Your task to perform on an android device: turn off sleep mode Image 0: 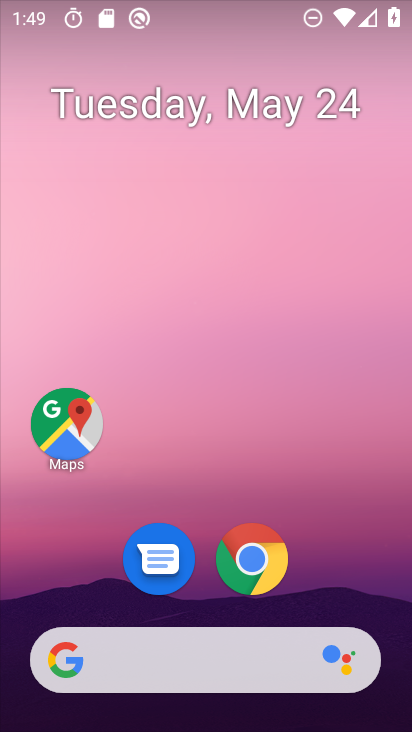
Step 0: click (291, 149)
Your task to perform on an android device: turn off sleep mode Image 1: 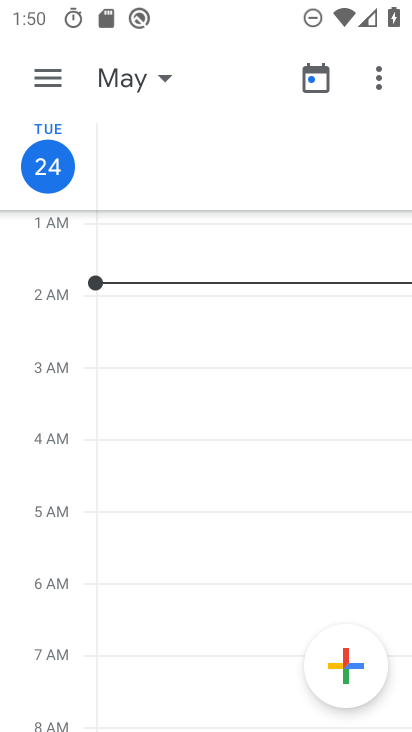
Step 1: click (51, 77)
Your task to perform on an android device: turn off sleep mode Image 2: 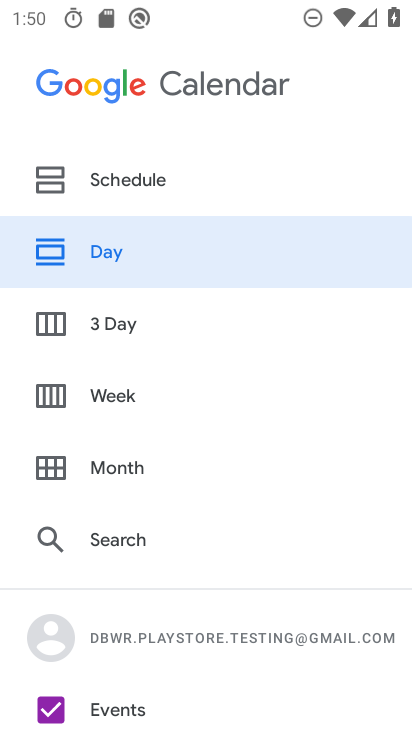
Step 2: press home button
Your task to perform on an android device: turn off sleep mode Image 3: 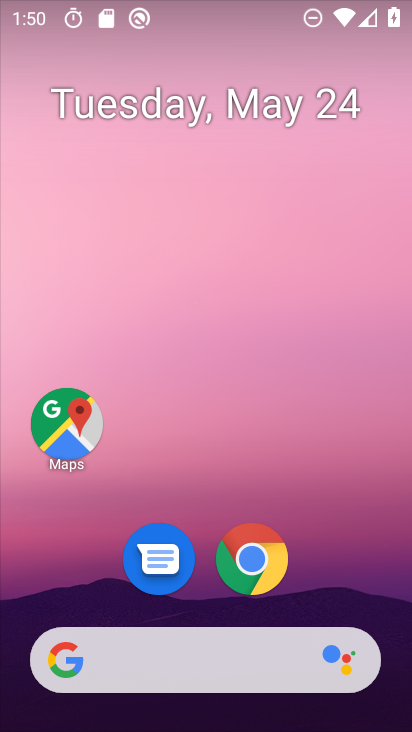
Step 3: drag from (389, 507) to (373, 145)
Your task to perform on an android device: turn off sleep mode Image 4: 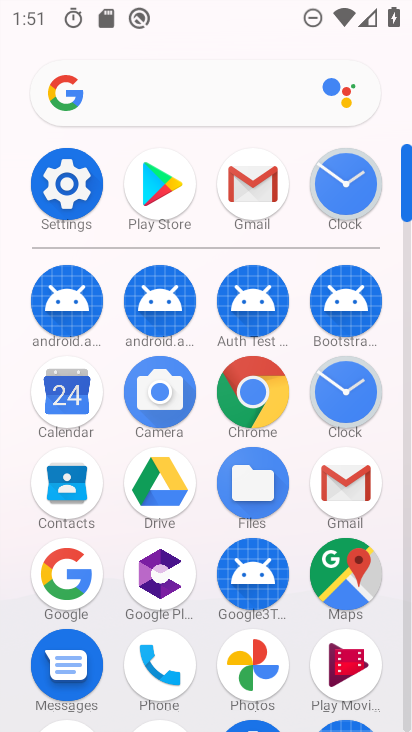
Step 4: click (74, 206)
Your task to perform on an android device: turn off sleep mode Image 5: 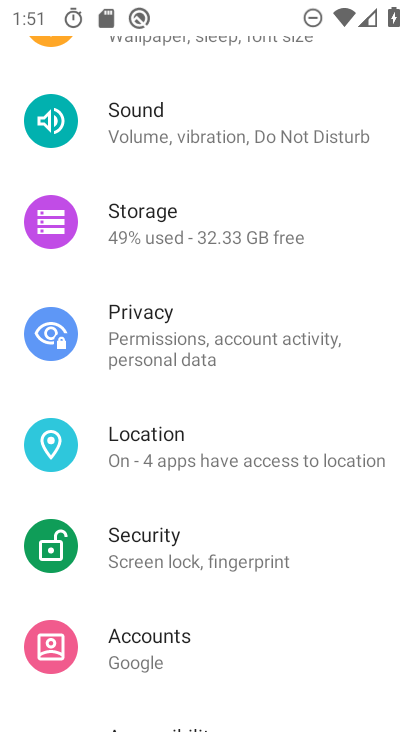
Step 5: drag from (288, 116) to (316, 636)
Your task to perform on an android device: turn off sleep mode Image 6: 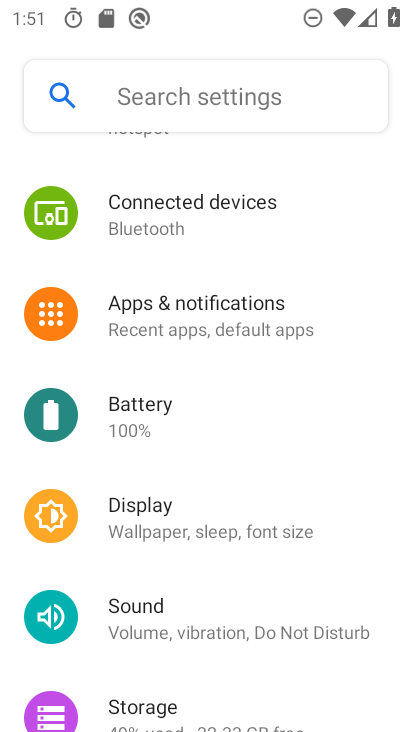
Step 6: click (167, 526)
Your task to perform on an android device: turn off sleep mode Image 7: 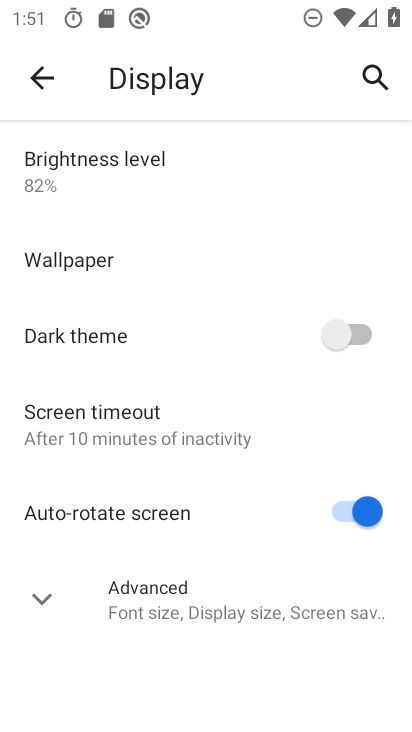
Step 7: drag from (275, 392) to (267, 545)
Your task to perform on an android device: turn off sleep mode Image 8: 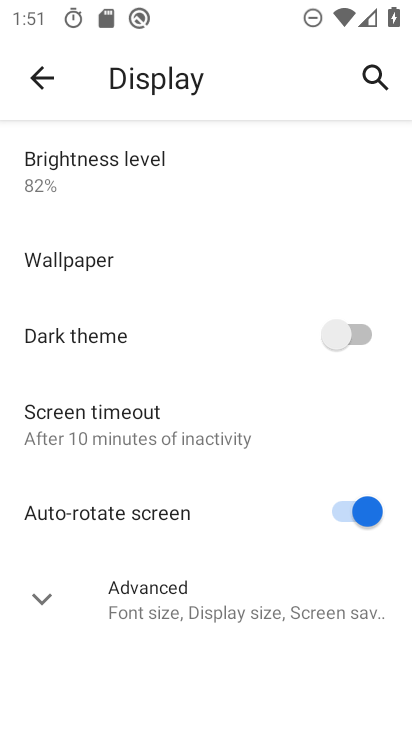
Step 8: click (108, 426)
Your task to perform on an android device: turn off sleep mode Image 9: 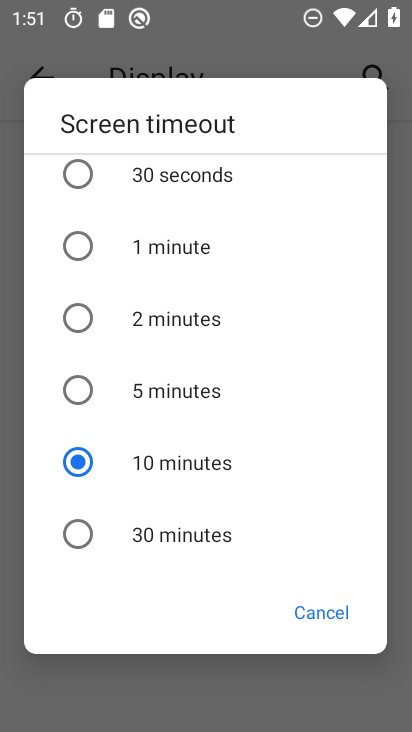
Step 9: task complete